Your task to perform on an android device: set default search engine in the chrome app Image 0: 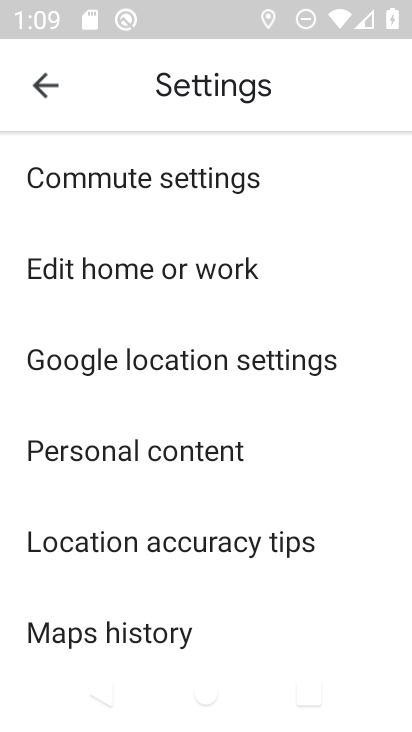
Step 0: press home button
Your task to perform on an android device: set default search engine in the chrome app Image 1: 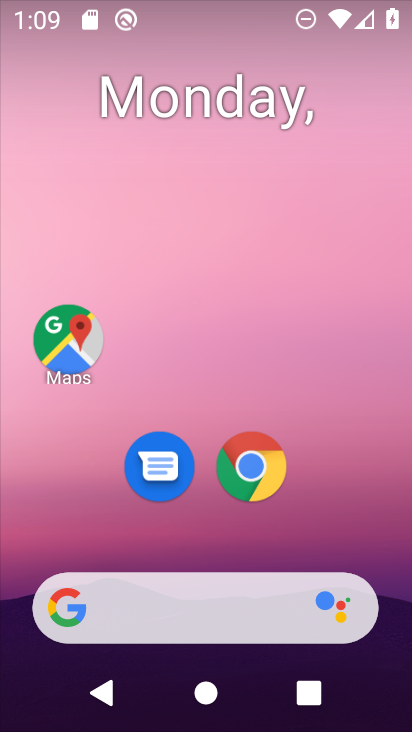
Step 1: click (258, 469)
Your task to perform on an android device: set default search engine in the chrome app Image 2: 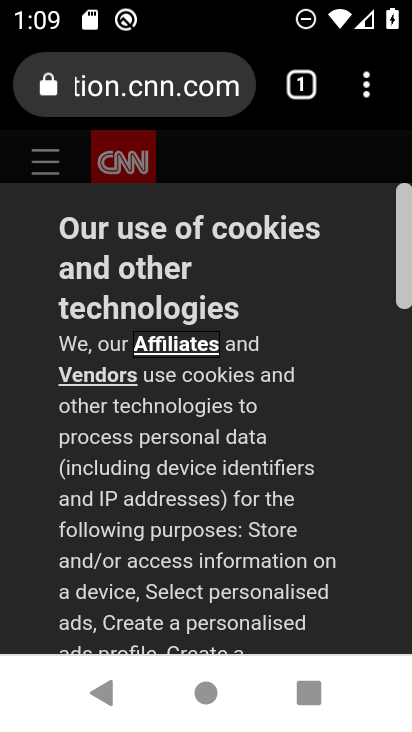
Step 2: click (360, 86)
Your task to perform on an android device: set default search engine in the chrome app Image 3: 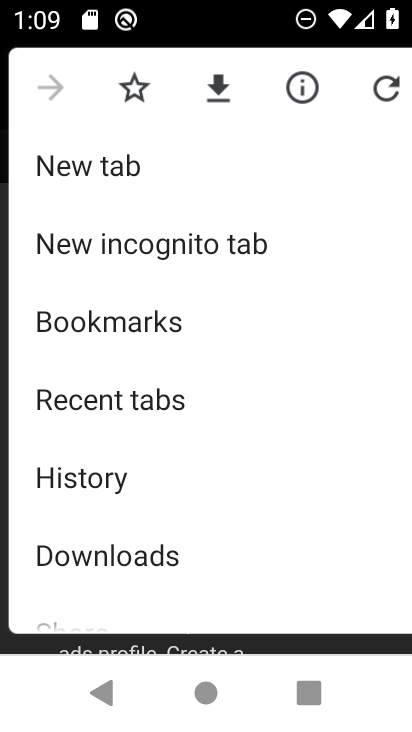
Step 3: drag from (112, 554) to (145, 289)
Your task to perform on an android device: set default search engine in the chrome app Image 4: 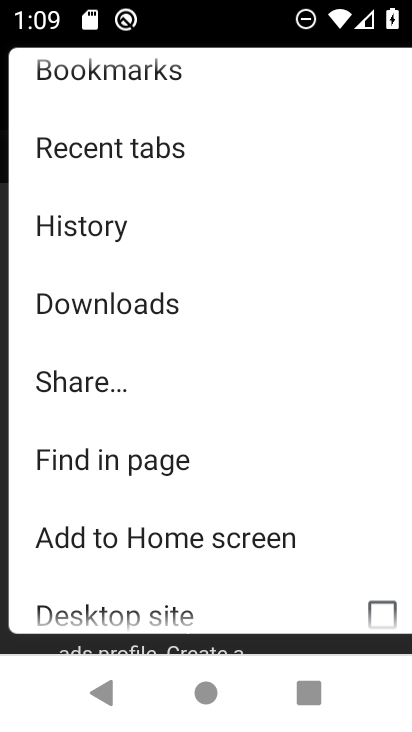
Step 4: drag from (141, 523) to (200, 198)
Your task to perform on an android device: set default search engine in the chrome app Image 5: 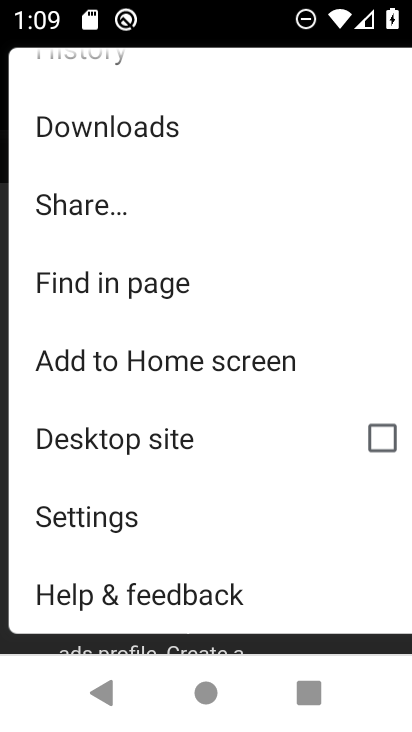
Step 5: click (133, 537)
Your task to perform on an android device: set default search engine in the chrome app Image 6: 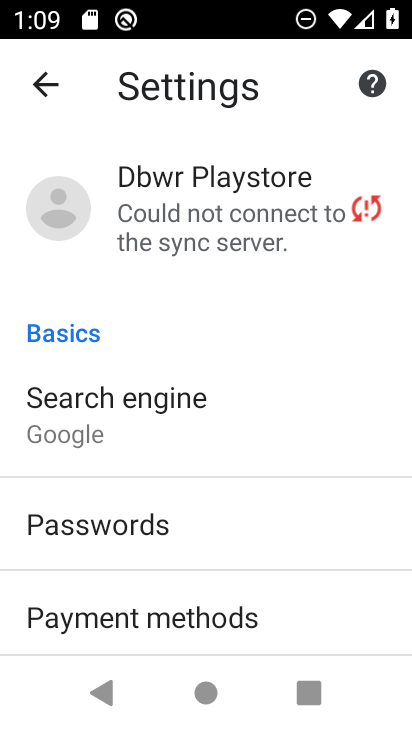
Step 6: click (167, 424)
Your task to perform on an android device: set default search engine in the chrome app Image 7: 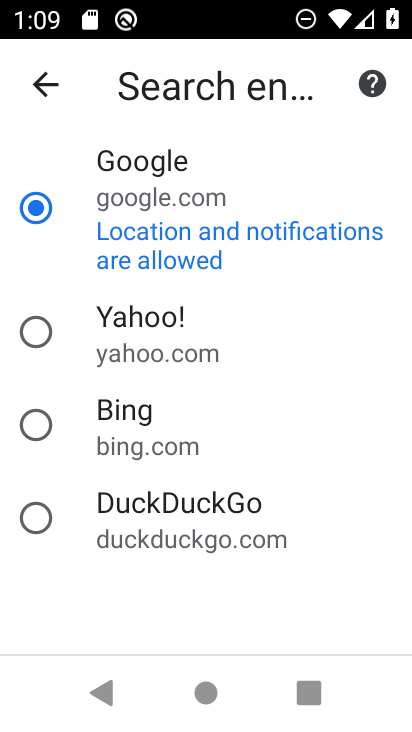
Step 7: task complete